Your task to perform on an android device: Go to location settings Image 0: 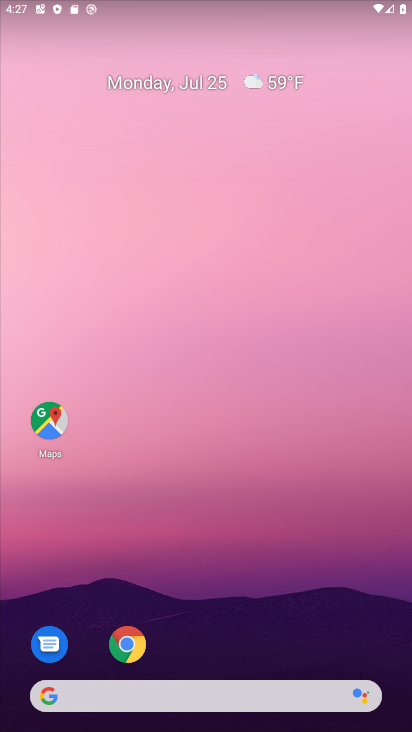
Step 0: drag from (206, 686) to (167, 57)
Your task to perform on an android device: Go to location settings Image 1: 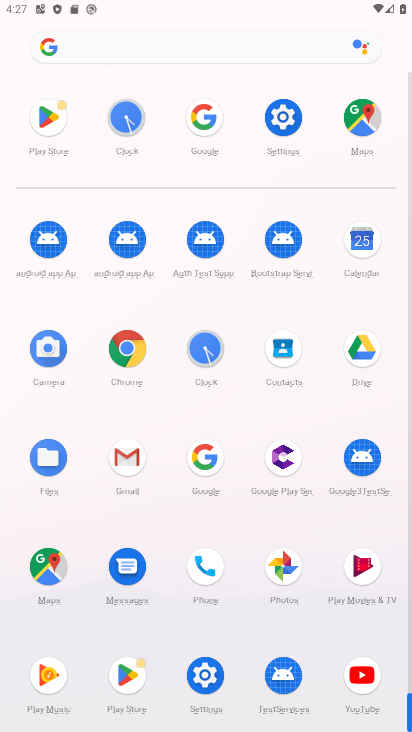
Step 1: click (292, 113)
Your task to perform on an android device: Go to location settings Image 2: 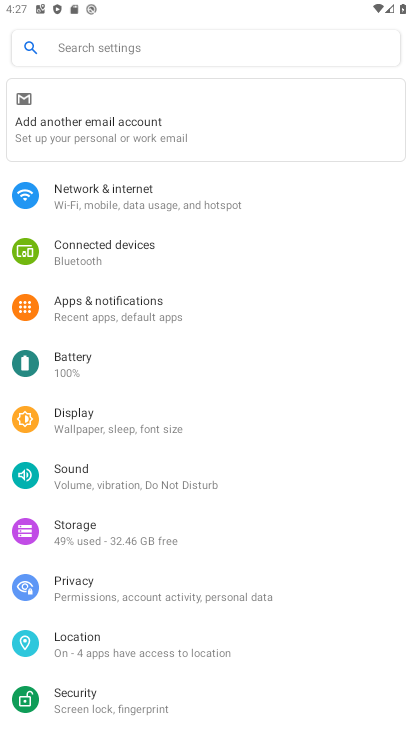
Step 2: click (86, 628)
Your task to perform on an android device: Go to location settings Image 3: 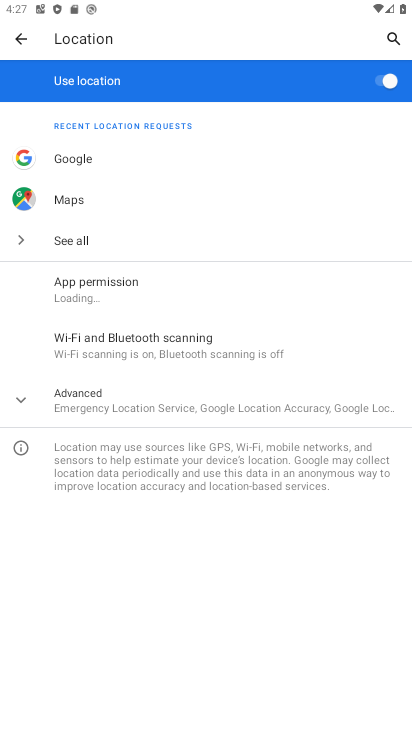
Step 3: click (80, 407)
Your task to perform on an android device: Go to location settings Image 4: 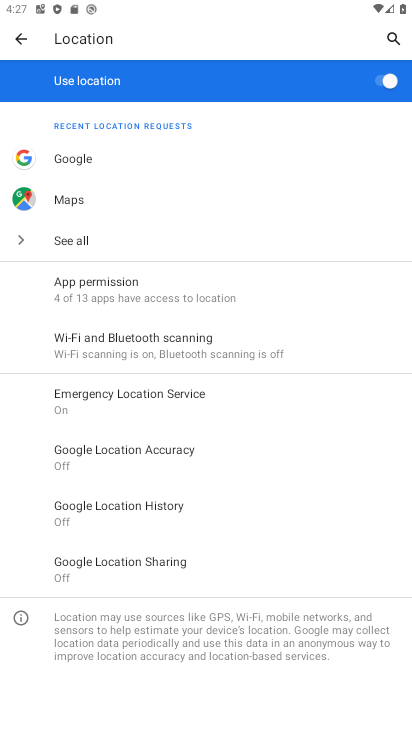
Step 4: task complete